Your task to perform on an android device: See recent photos Image 0: 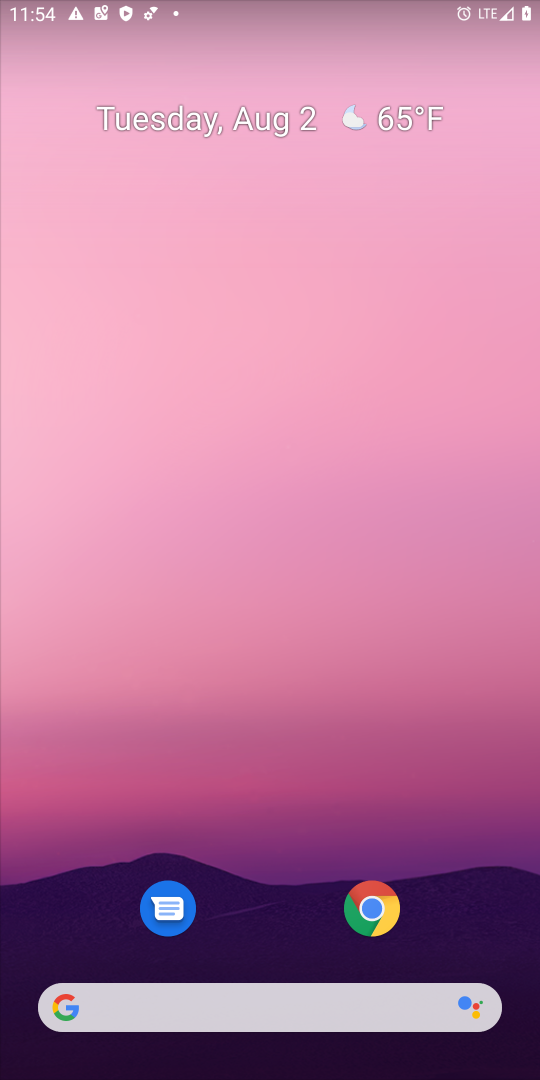
Step 0: drag from (322, 807) to (398, 32)
Your task to perform on an android device: See recent photos Image 1: 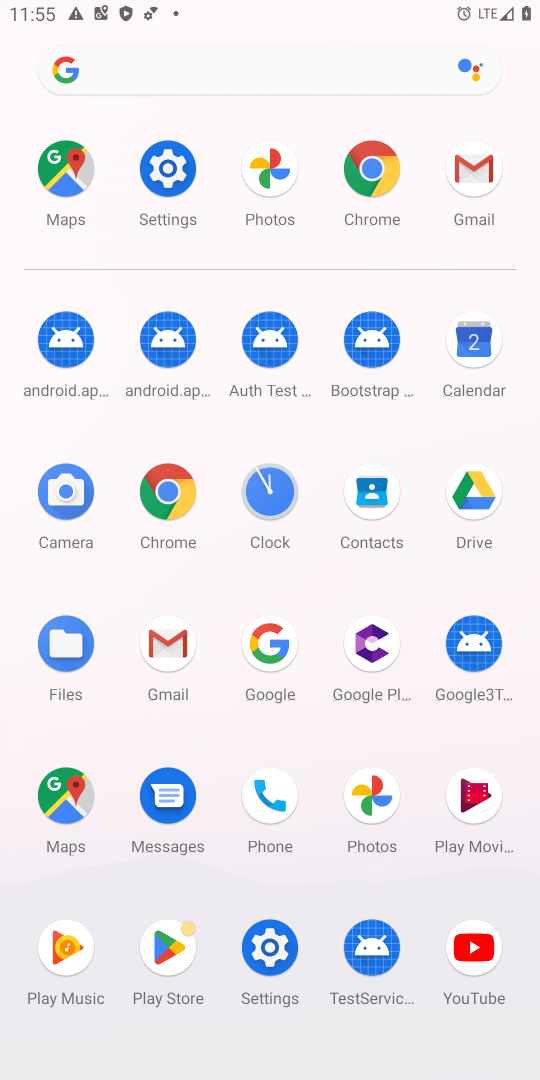
Step 1: click (377, 809)
Your task to perform on an android device: See recent photos Image 2: 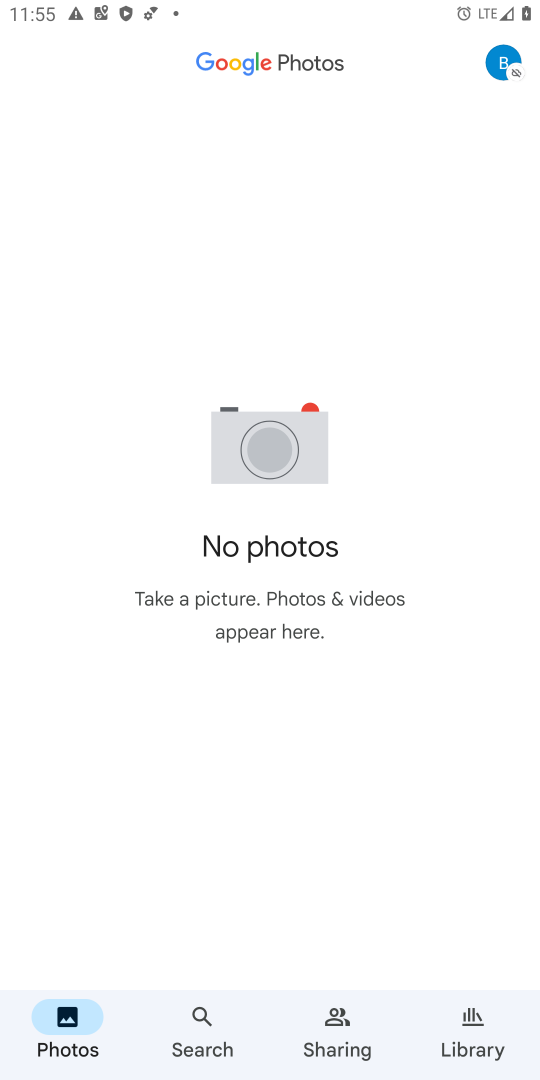
Step 2: task complete